Your task to perform on an android device: toggle show notifications on the lock screen Image 0: 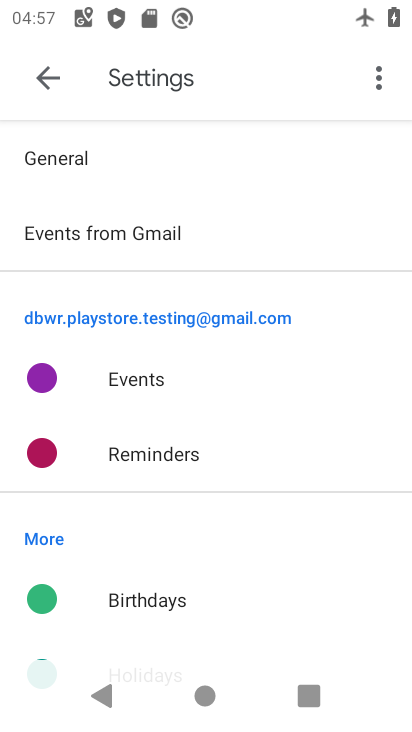
Step 0: press home button
Your task to perform on an android device: toggle show notifications on the lock screen Image 1: 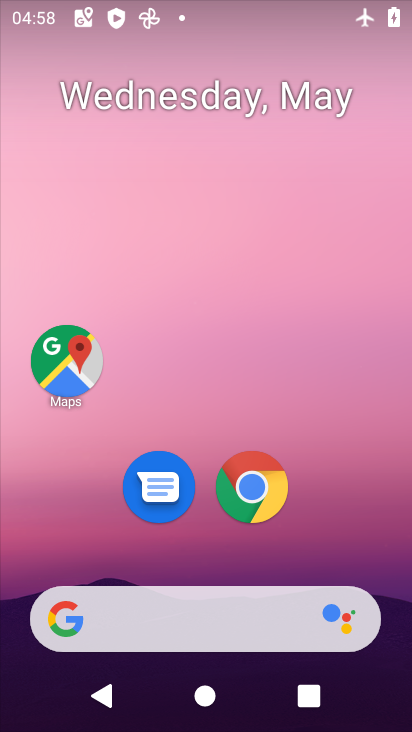
Step 1: drag from (319, 546) to (294, 82)
Your task to perform on an android device: toggle show notifications on the lock screen Image 2: 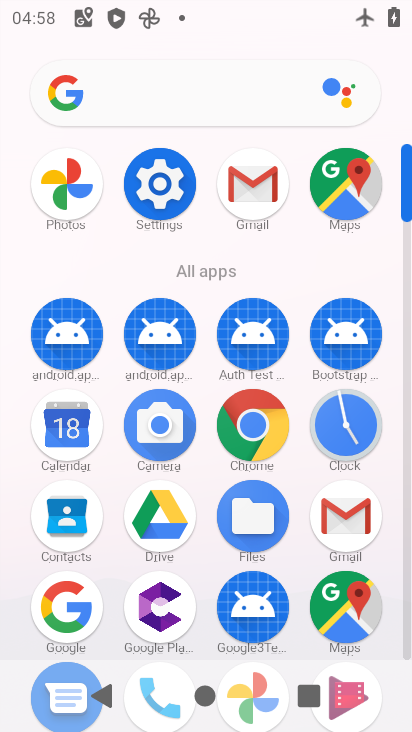
Step 2: click (184, 180)
Your task to perform on an android device: toggle show notifications on the lock screen Image 3: 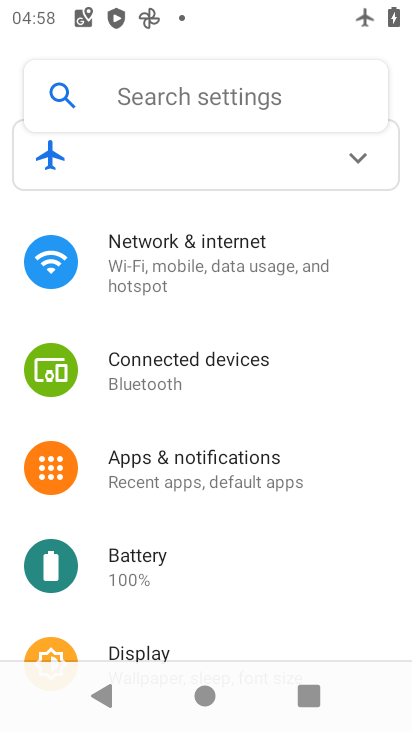
Step 3: click (276, 471)
Your task to perform on an android device: toggle show notifications on the lock screen Image 4: 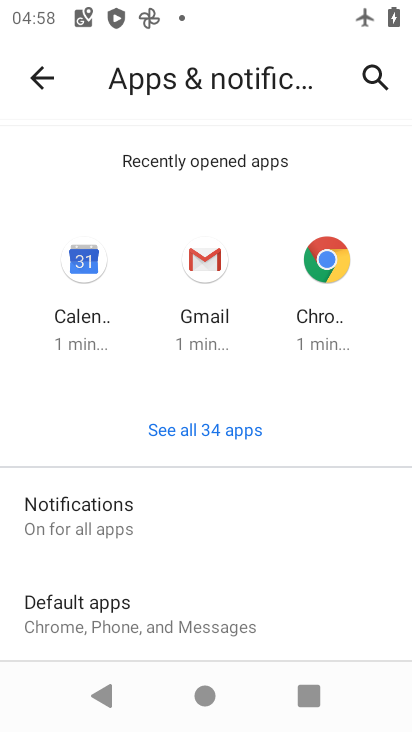
Step 4: click (234, 528)
Your task to perform on an android device: toggle show notifications on the lock screen Image 5: 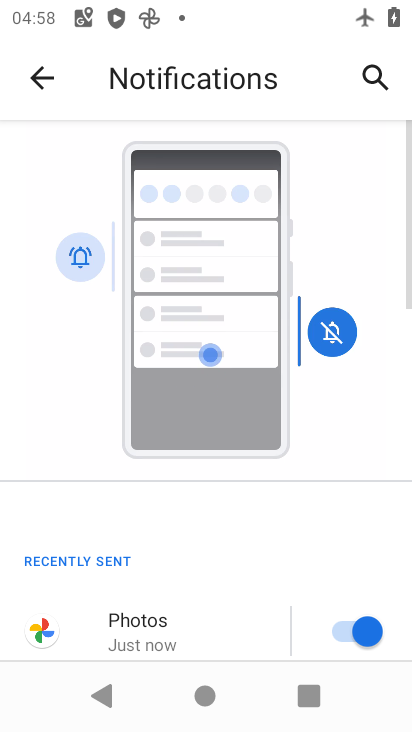
Step 5: drag from (197, 589) to (272, 175)
Your task to perform on an android device: toggle show notifications on the lock screen Image 6: 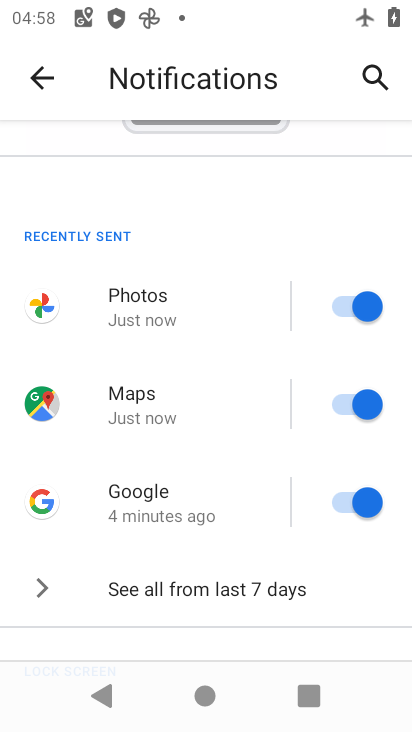
Step 6: drag from (245, 508) to (249, 210)
Your task to perform on an android device: toggle show notifications on the lock screen Image 7: 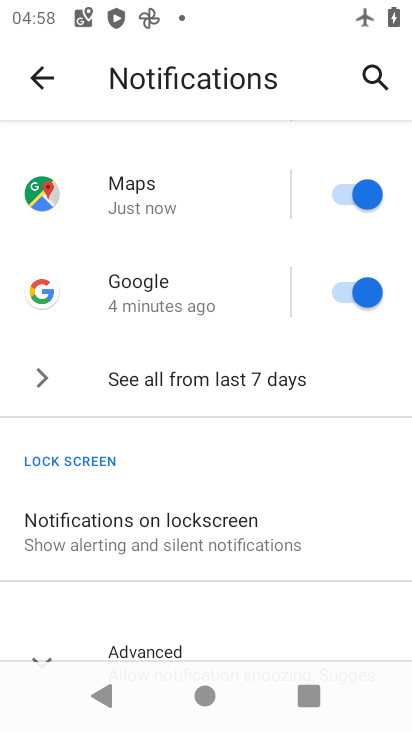
Step 7: click (218, 503)
Your task to perform on an android device: toggle show notifications on the lock screen Image 8: 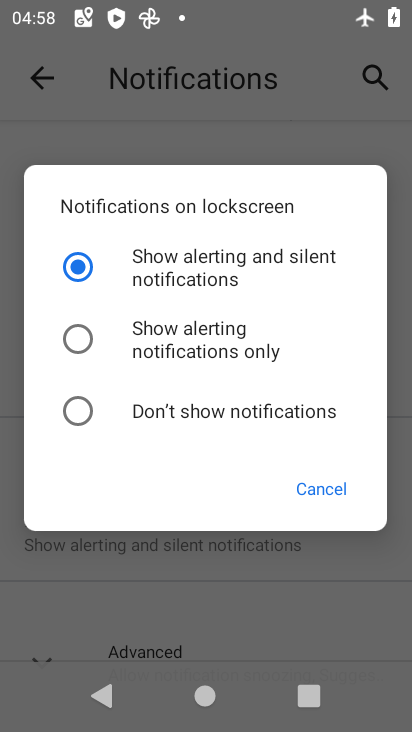
Step 8: click (192, 347)
Your task to perform on an android device: toggle show notifications on the lock screen Image 9: 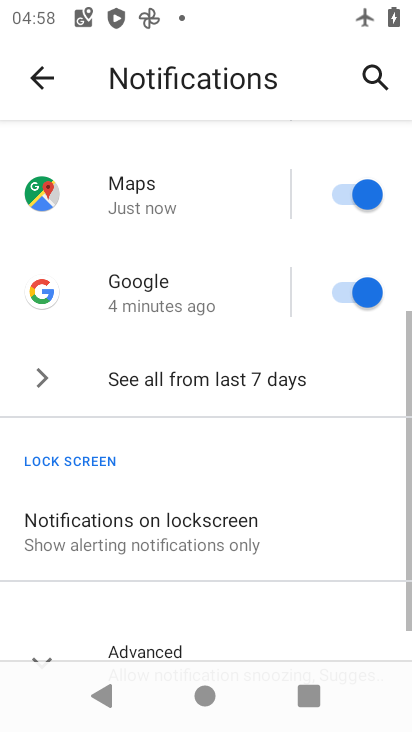
Step 9: task complete